Your task to perform on an android device: Go to Wikipedia Image 0: 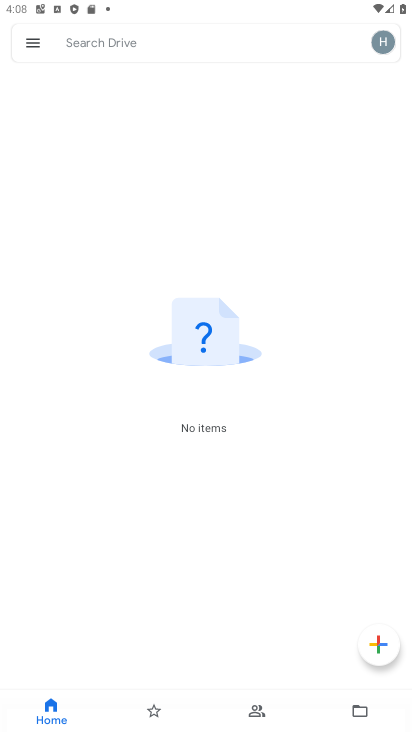
Step 0: press home button
Your task to perform on an android device: Go to Wikipedia Image 1: 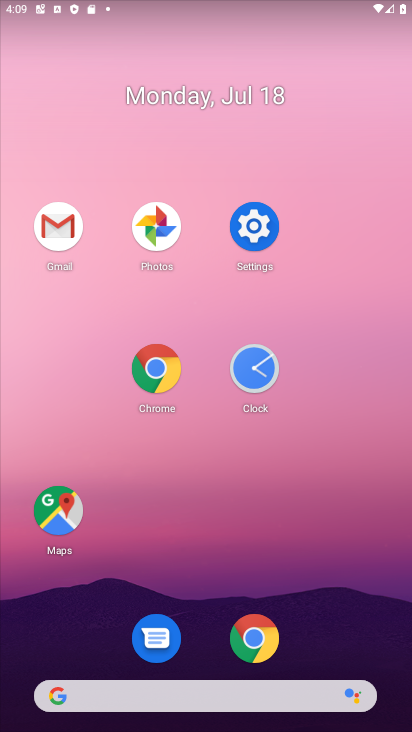
Step 1: click (255, 631)
Your task to perform on an android device: Go to Wikipedia Image 2: 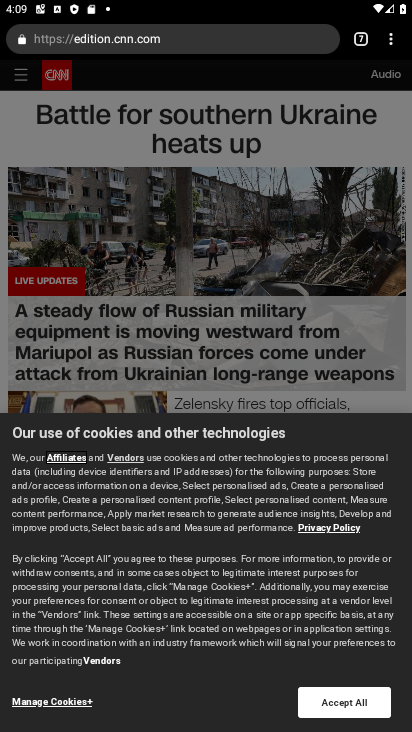
Step 2: click (355, 40)
Your task to perform on an android device: Go to Wikipedia Image 3: 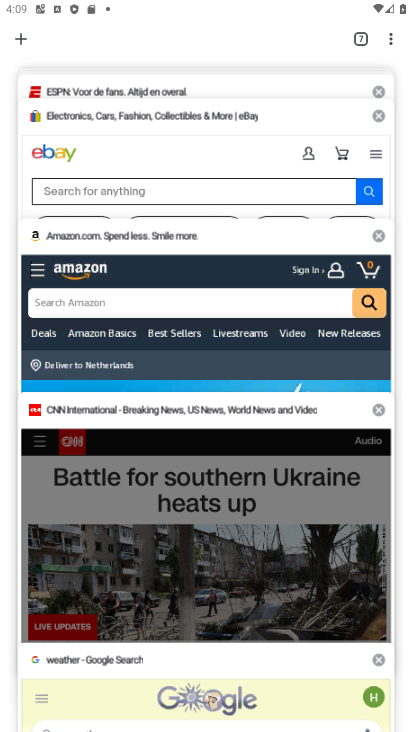
Step 3: drag from (203, 160) to (208, 562)
Your task to perform on an android device: Go to Wikipedia Image 4: 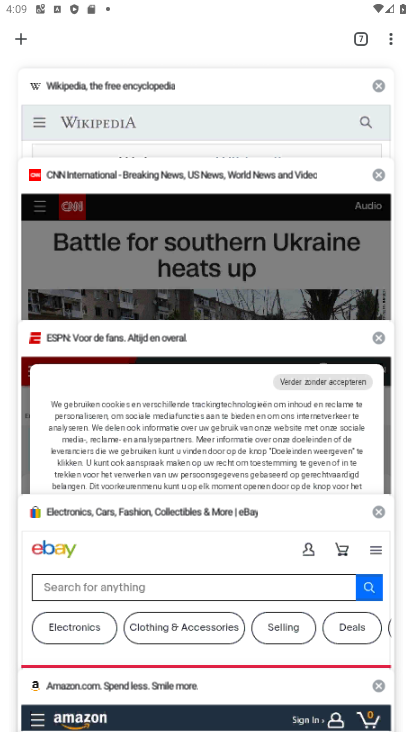
Step 4: click (76, 109)
Your task to perform on an android device: Go to Wikipedia Image 5: 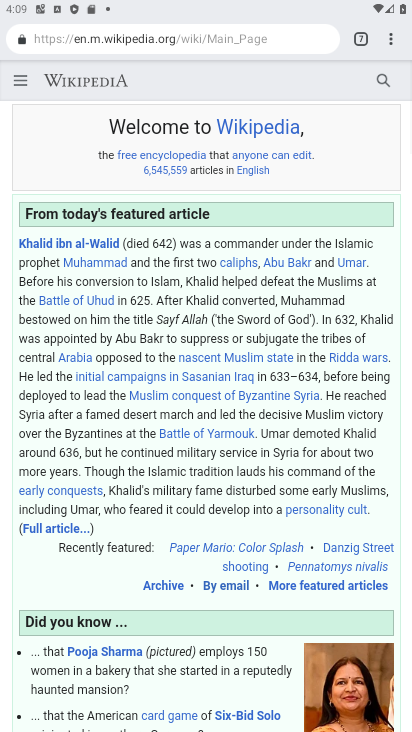
Step 5: task complete